Your task to perform on an android device: open a bookmark in the chrome app Image 0: 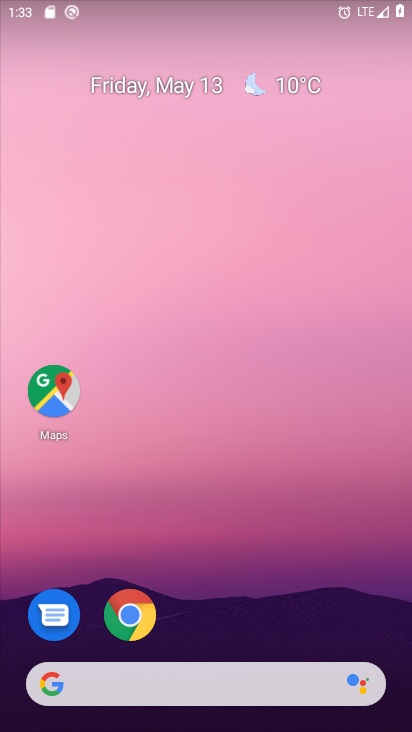
Step 0: drag from (299, 541) to (316, 79)
Your task to perform on an android device: open a bookmark in the chrome app Image 1: 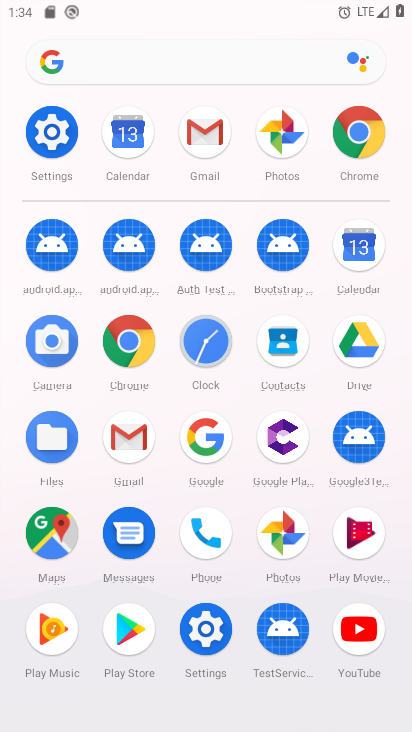
Step 1: click (353, 143)
Your task to perform on an android device: open a bookmark in the chrome app Image 2: 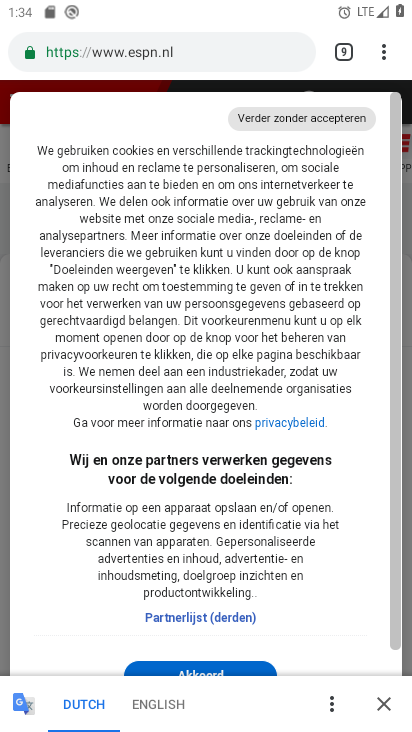
Step 2: click (379, 48)
Your task to perform on an android device: open a bookmark in the chrome app Image 3: 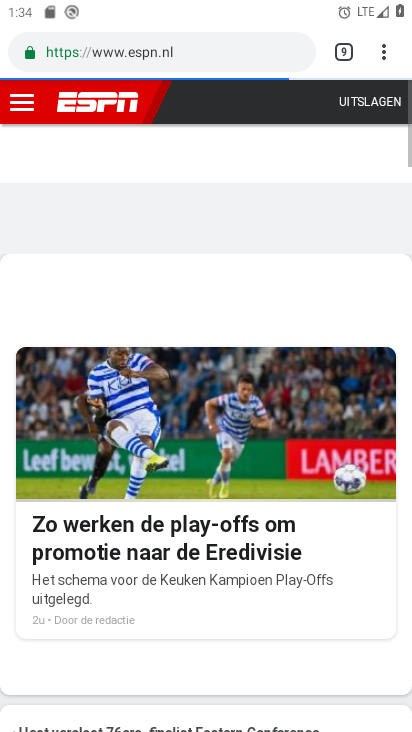
Step 3: drag from (379, 48) to (253, 188)
Your task to perform on an android device: open a bookmark in the chrome app Image 4: 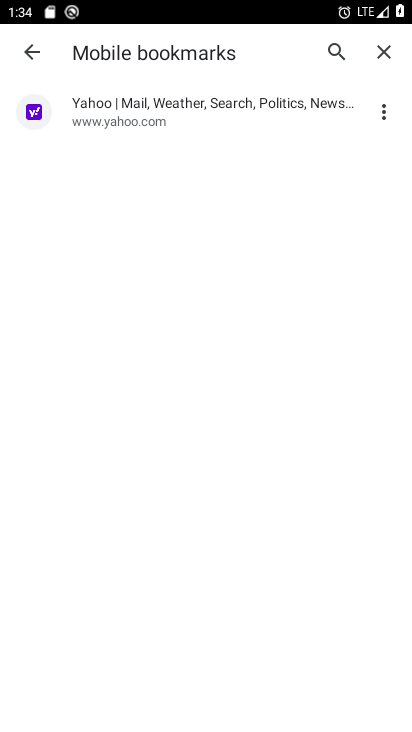
Step 4: click (272, 115)
Your task to perform on an android device: open a bookmark in the chrome app Image 5: 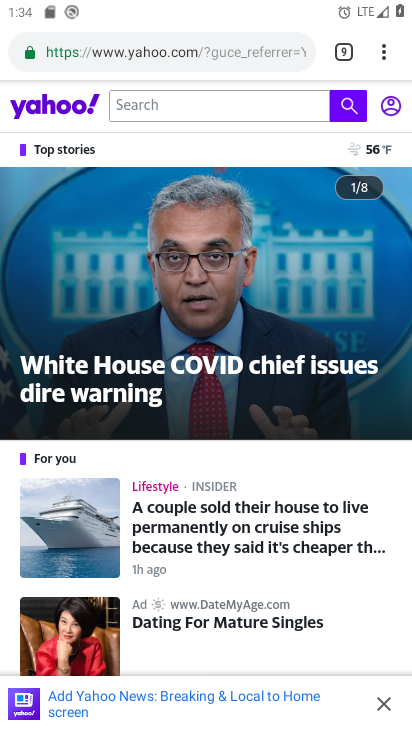
Step 5: task complete